Your task to perform on an android device: see tabs open on other devices in the chrome app Image 0: 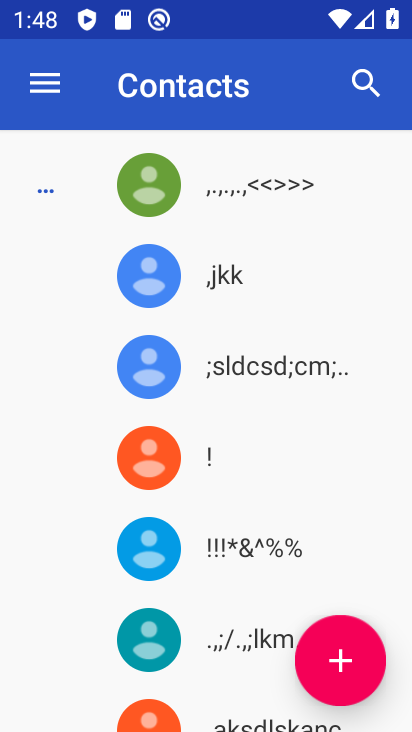
Step 0: press back button
Your task to perform on an android device: see tabs open on other devices in the chrome app Image 1: 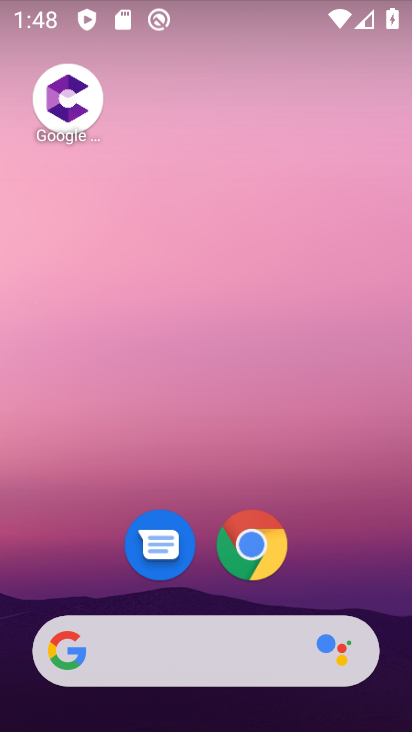
Step 1: drag from (354, 551) to (235, 24)
Your task to perform on an android device: see tabs open on other devices in the chrome app Image 2: 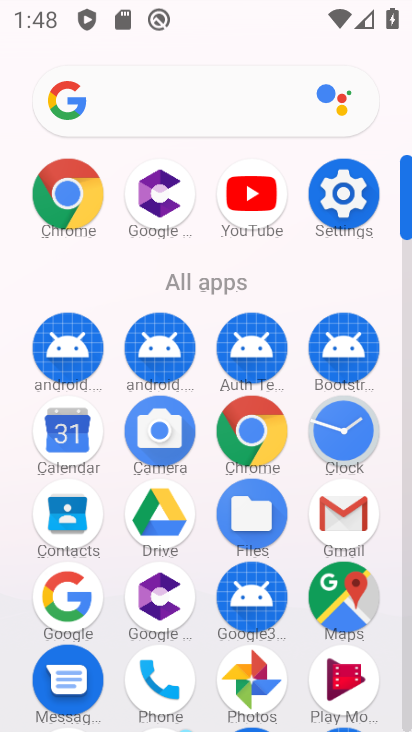
Step 2: drag from (3, 568) to (3, 220)
Your task to perform on an android device: see tabs open on other devices in the chrome app Image 3: 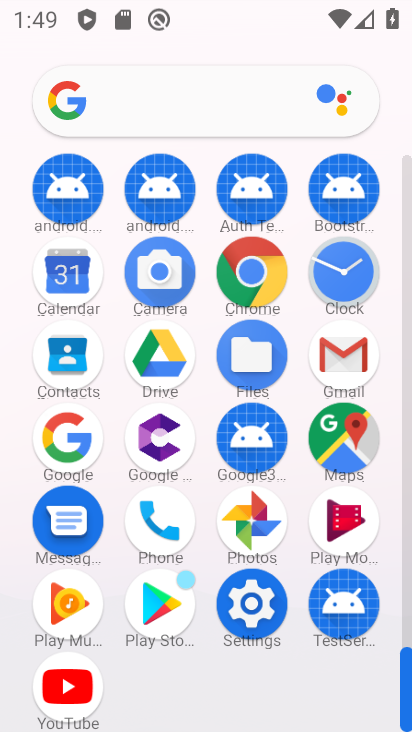
Step 3: click (254, 265)
Your task to perform on an android device: see tabs open on other devices in the chrome app Image 4: 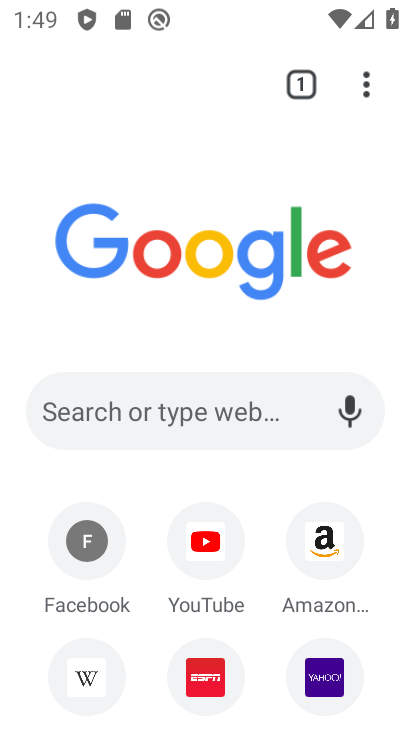
Step 4: task complete